Your task to perform on an android device: Check the news Image 0: 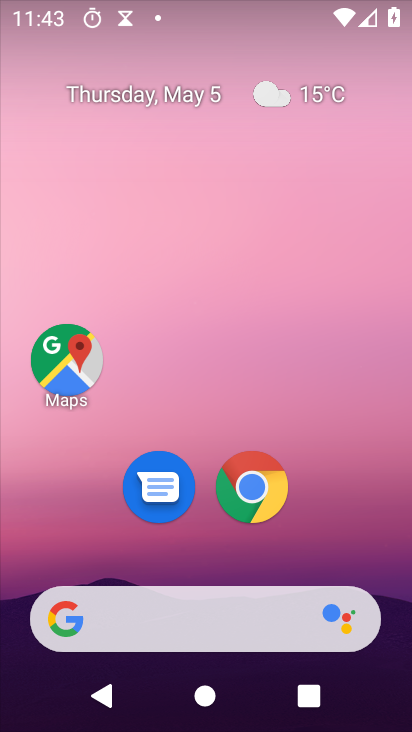
Step 0: drag from (336, 536) to (93, 16)
Your task to perform on an android device: Check the news Image 1: 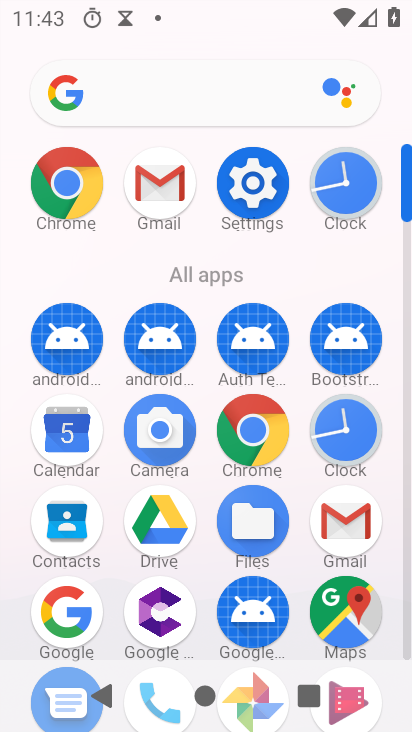
Step 1: task complete